Your task to perform on an android device: turn off improve location accuracy Image 0: 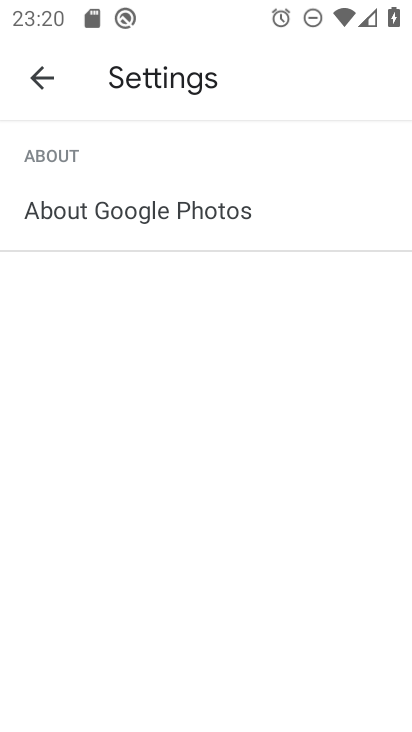
Step 0: press home button
Your task to perform on an android device: turn off improve location accuracy Image 1: 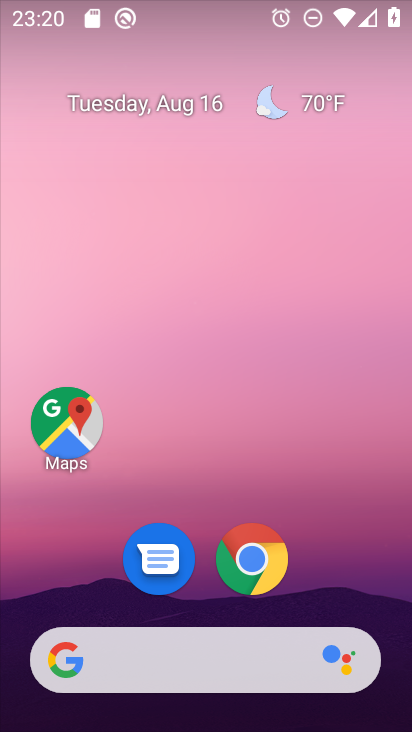
Step 1: drag from (208, 673) to (288, 148)
Your task to perform on an android device: turn off improve location accuracy Image 2: 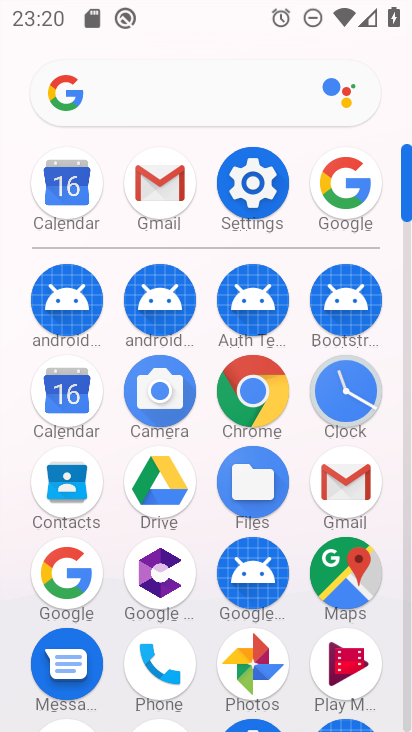
Step 2: click (254, 184)
Your task to perform on an android device: turn off improve location accuracy Image 3: 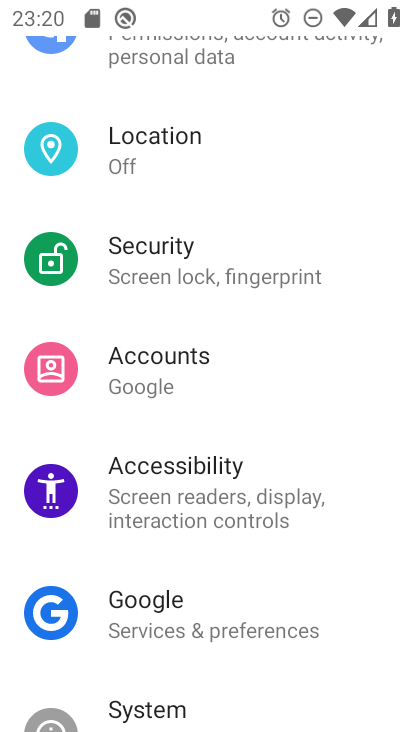
Step 3: click (175, 147)
Your task to perform on an android device: turn off improve location accuracy Image 4: 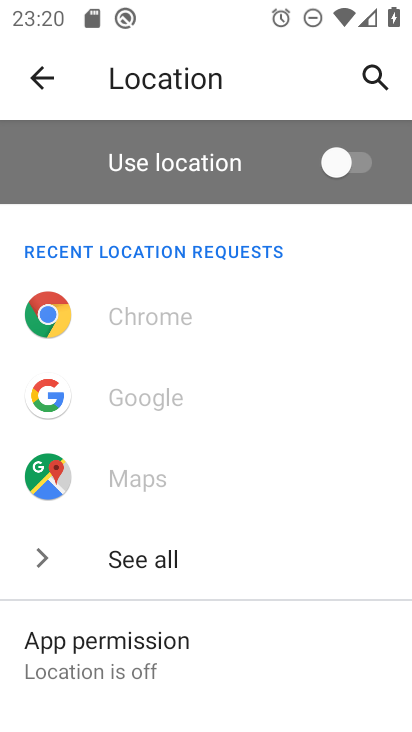
Step 4: drag from (233, 633) to (282, 380)
Your task to perform on an android device: turn off improve location accuracy Image 5: 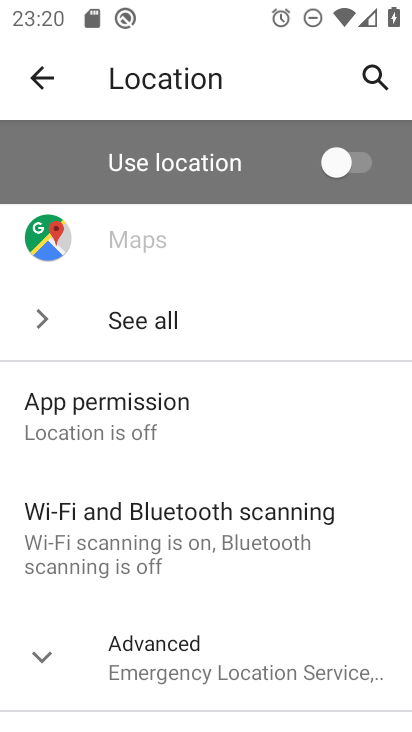
Step 5: click (198, 671)
Your task to perform on an android device: turn off improve location accuracy Image 6: 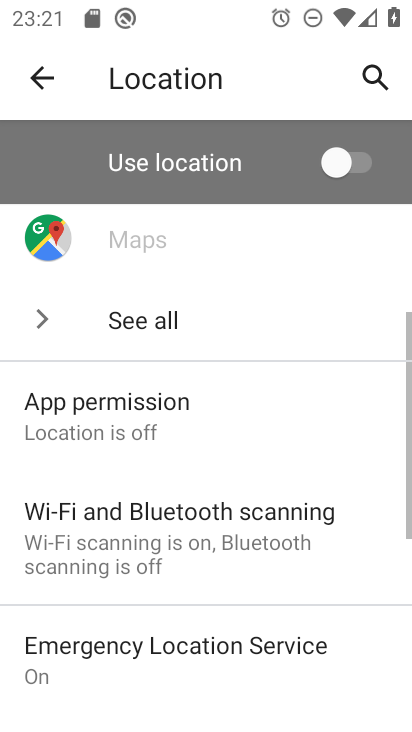
Step 6: drag from (192, 666) to (252, 517)
Your task to perform on an android device: turn off improve location accuracy Image 7: 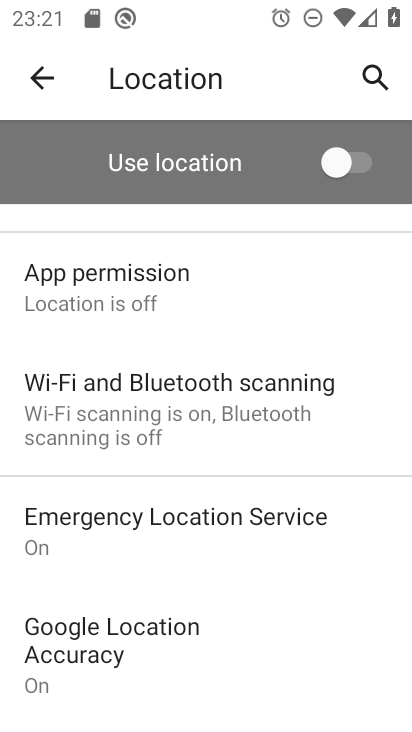
Step 7: click (154, 634)
Your task to perform on an android device: turn off improve location accuracy Image 8: 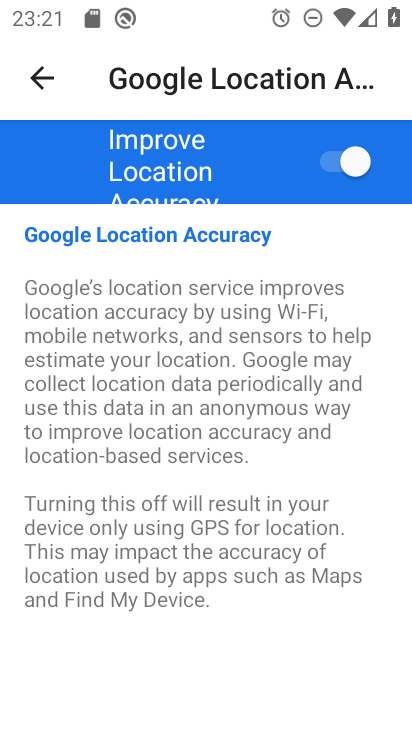
Step 8: click (328, 172)
Your task to perform on an android device: turn off improve location accuracy Image 9: 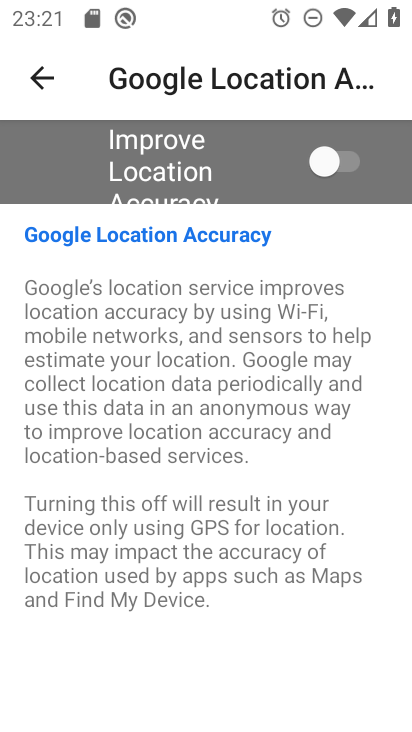
Step 9: task complete